Your task to perform on an android device: toggle data saver in the chrome app Image 0: 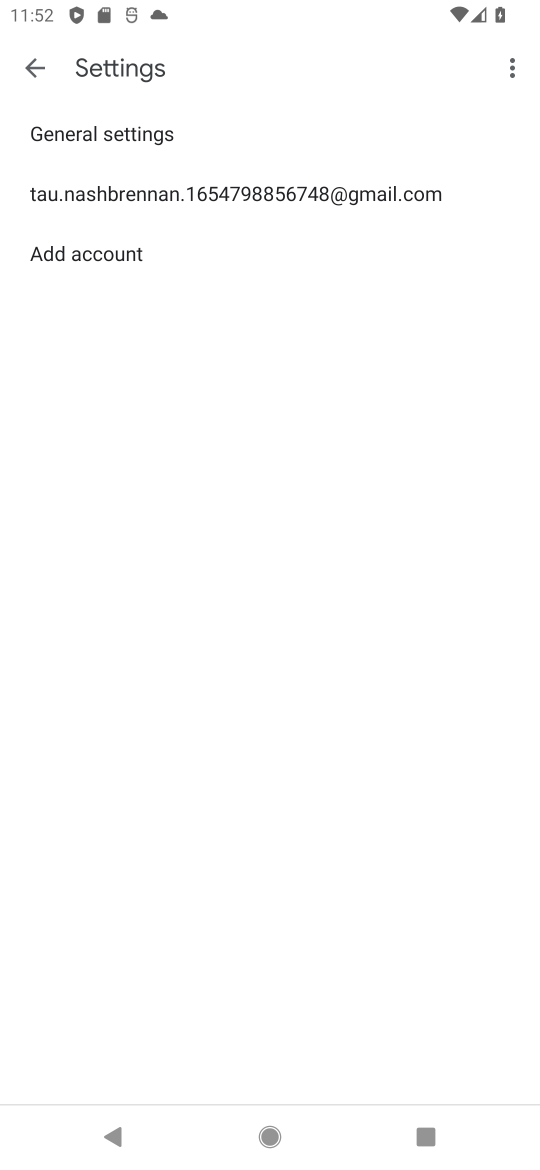
Step 0: press home button
Your task to perform on an android device: toggle data saver in the chrome app Image 1: 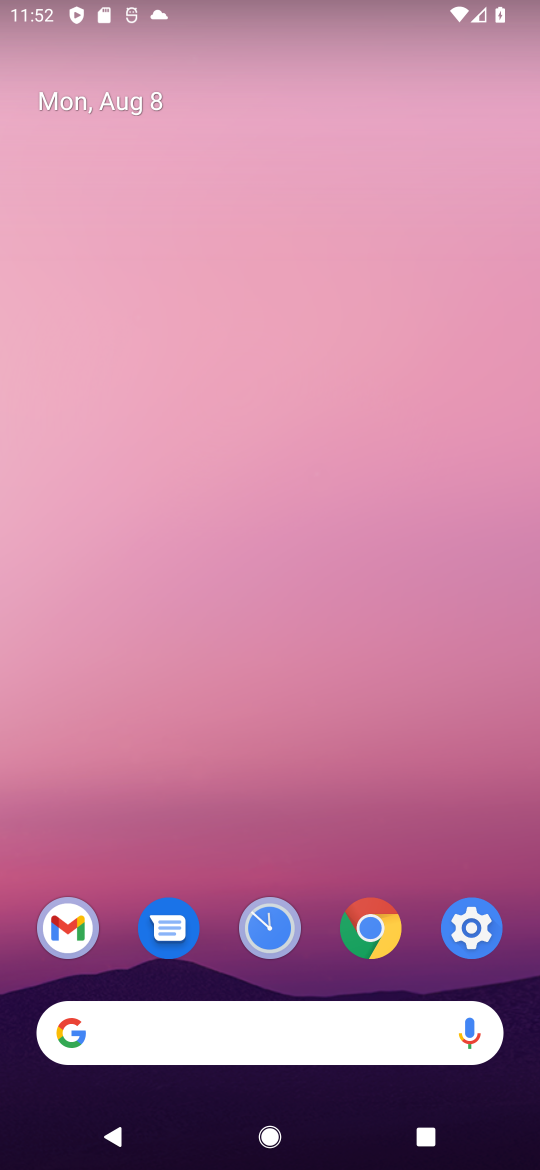
Step 1: drag from (406, 1051) to (359, 259)
Your task to perform on an android device: toggle data saver in the chrome app Image 2: 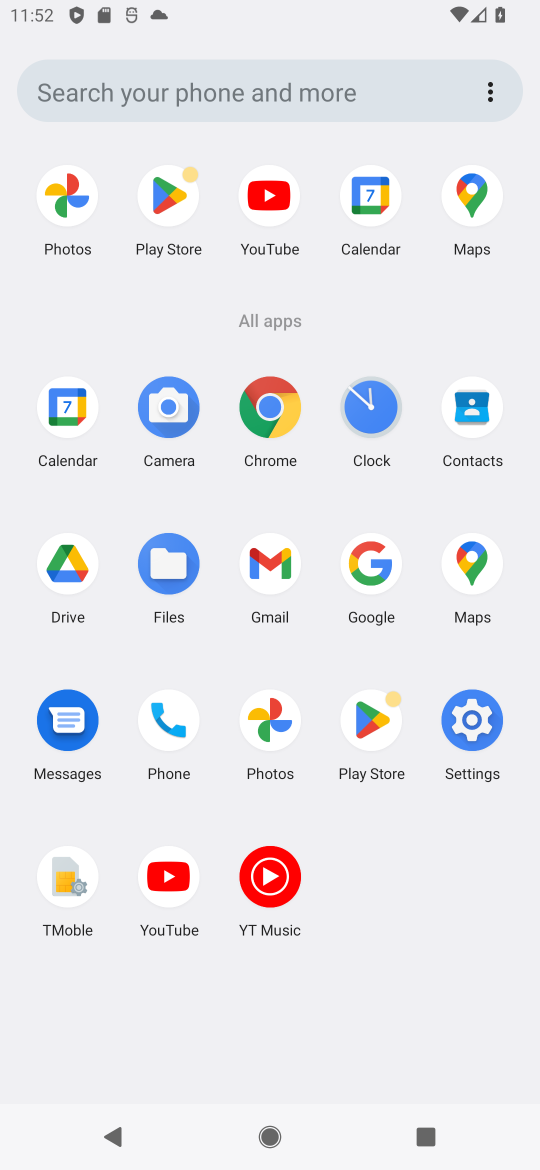
Step 2: click (263, 425)
Your task to perform on an android device: toggle data saver in the chrome app Image 3: 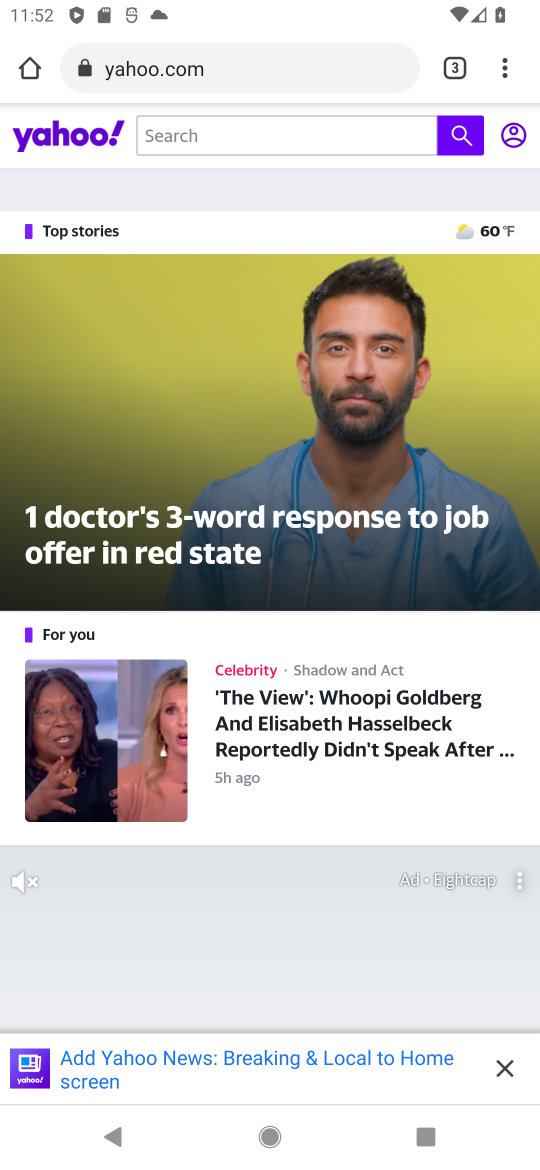
Step 3: click (506, 81)
Your task to perform on an android device: toggle data saver in the chrome app Image 4: 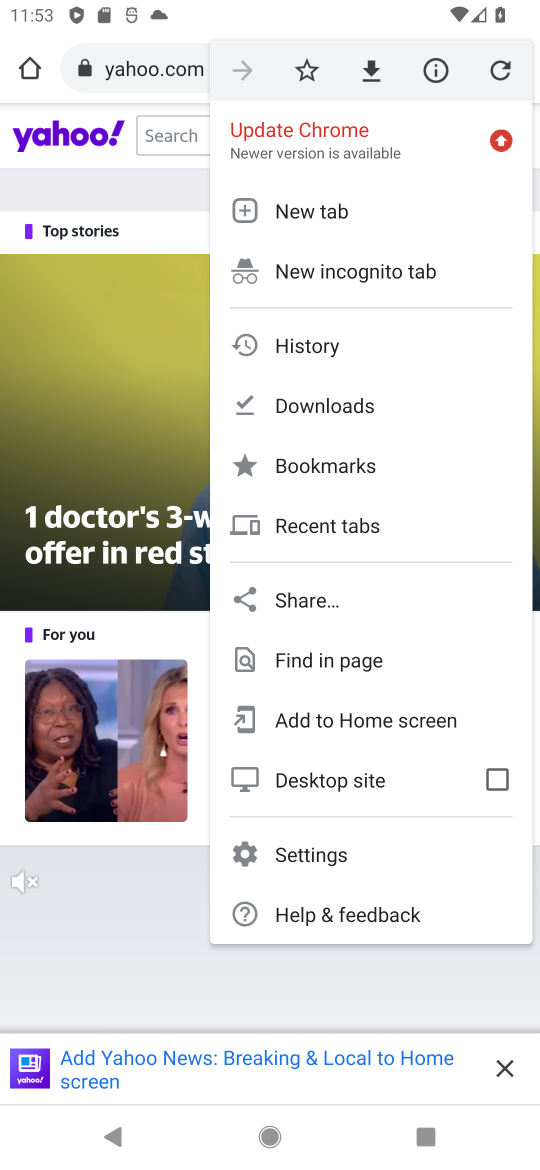
Step 4: click (313, 853)
Your task to perform on an android device: toggle data saver in the chrome app Image 5: 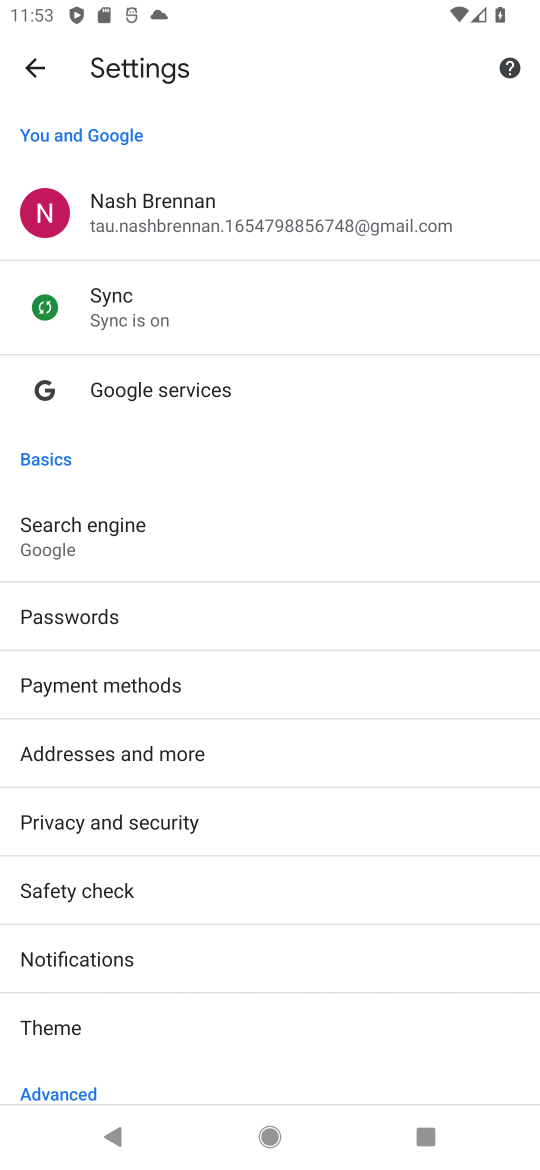
Step 5: drag from (186, 981) to (323, 631)
Your task to perform on an android device: toggle data saver in the chrome app Image 6: 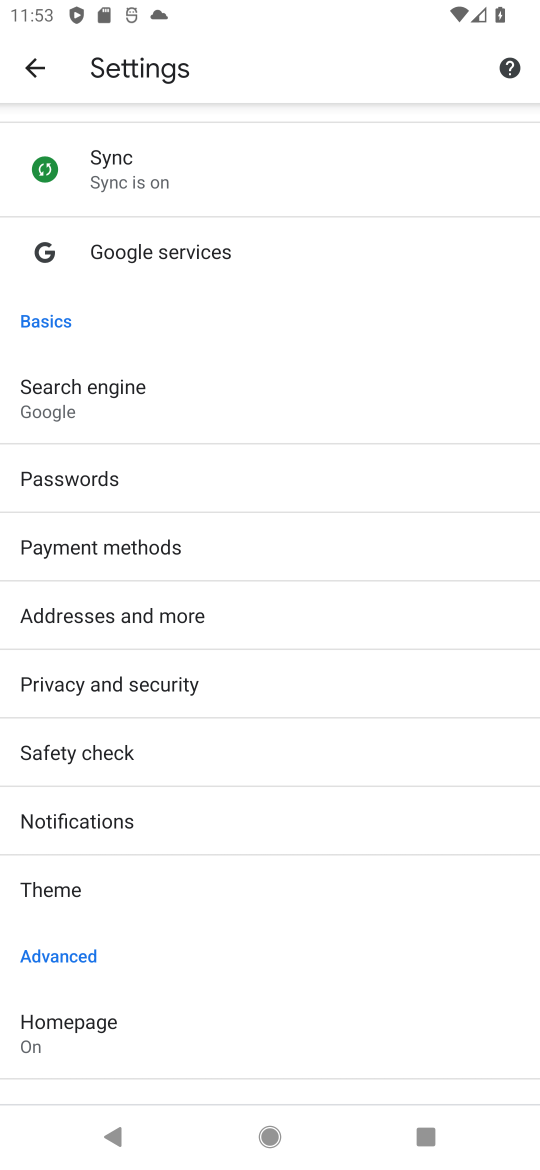
Step 6: drag from (329, 897) to (295, 534)
Your task to perform on an android device: toggle data saver in the chrome app Image 7: 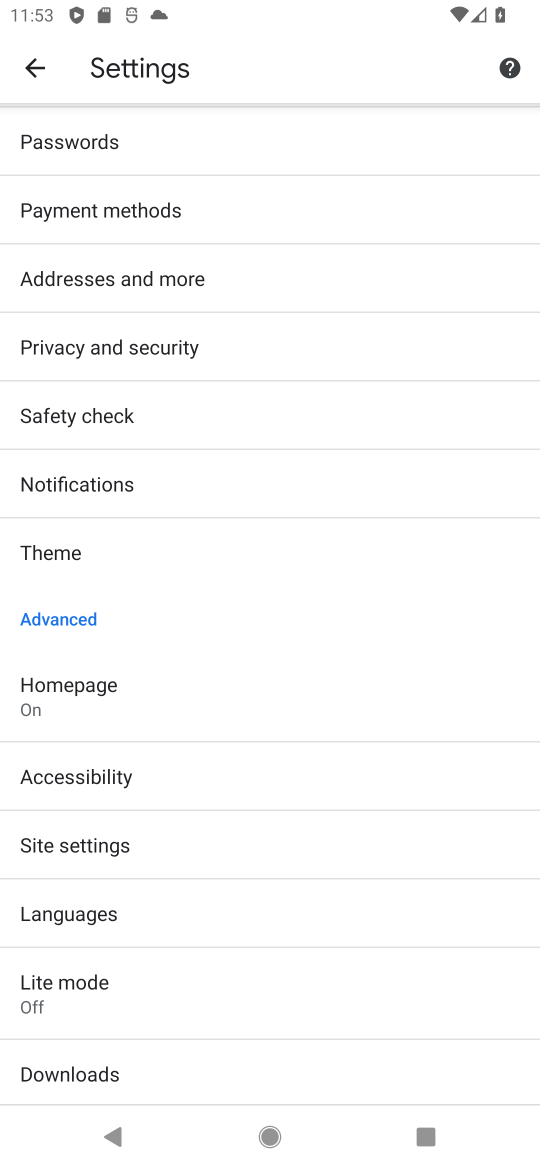
Step 7: click (117, 988)
Your task to perform on an android device: toggle data saver in the chrome app Image 8: 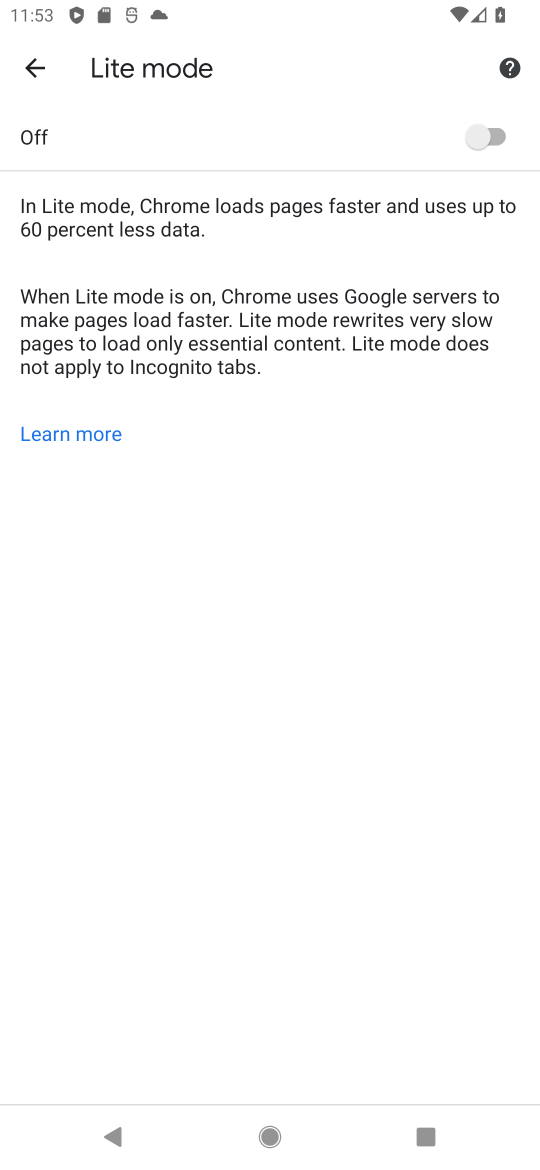
Step 8: click (494, 147)
Your task to perform on an android device: toggle data saver in the chrome app Image 9: 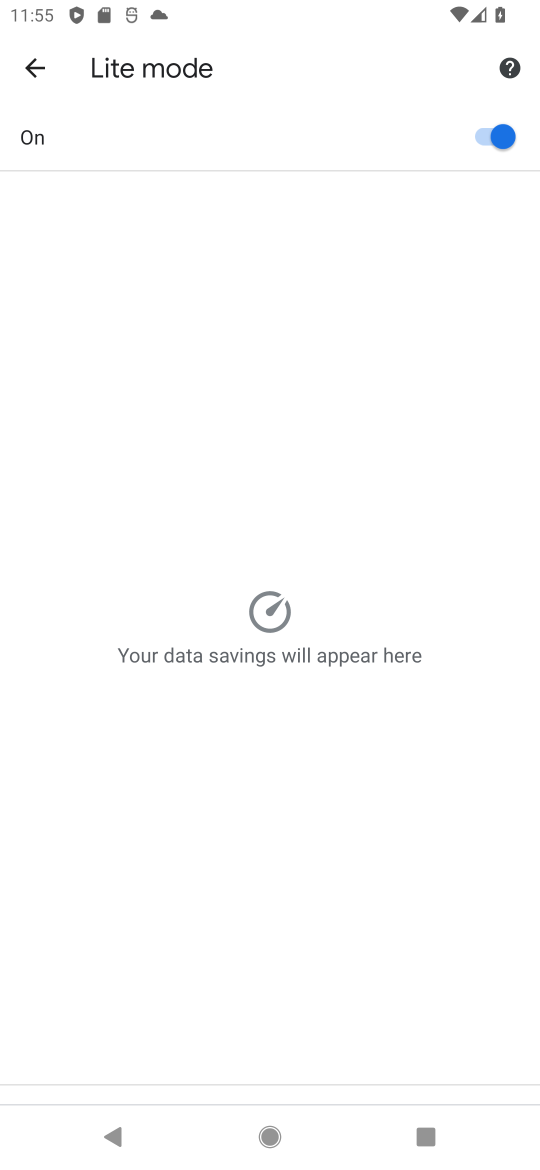
Step 9: task complete